Your task to perform on an android device: turn off airplane mode Image 0: 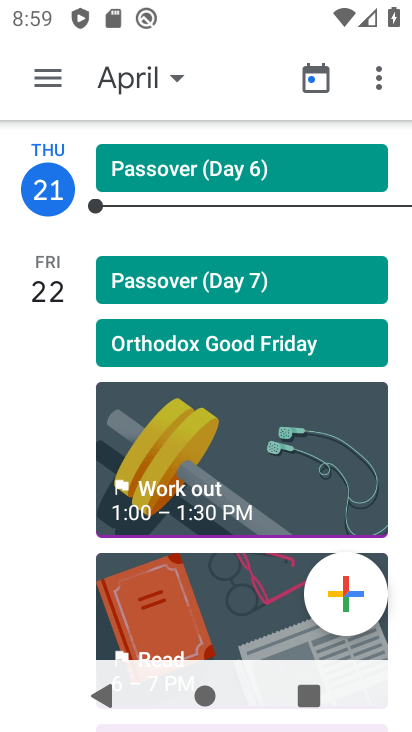
Step 0: press home button
Your task to perform on an android device: turn off airplane mode Image 1: 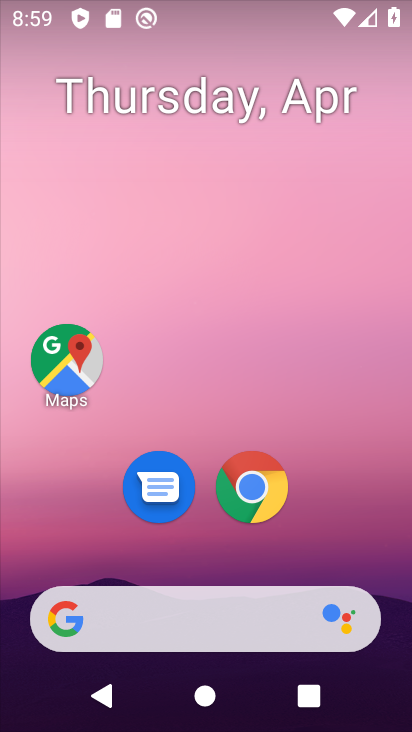
Step 1: drag from (379, 529) to (379, 130)
Your task to perform on an android device: turn off airplane mode Image 2: 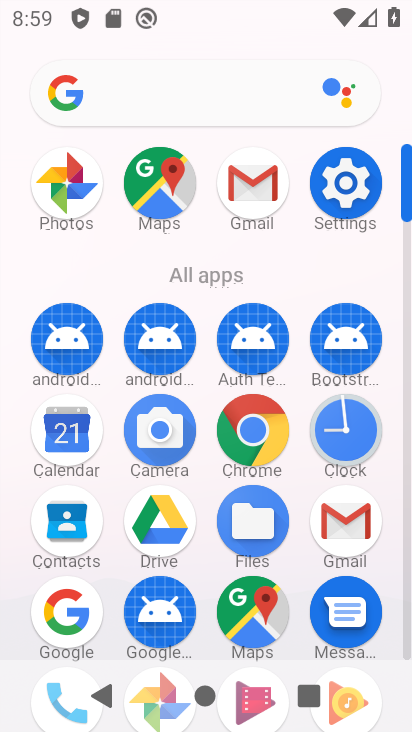
Step 2: click (368, 199)
Your task to perform on an android device: turn off airplane mode Image 3: 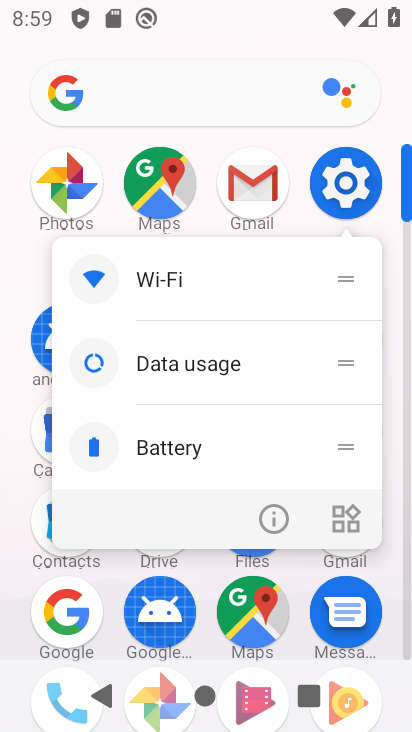
Step 3: click (364, 195)
Your task to perform on an android device: turn off airplane mode Image 4: 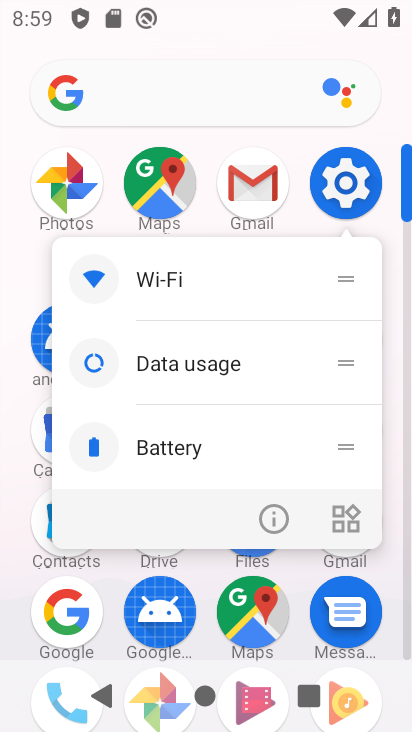
Step 4: click (360, 194)
Your task to perform on an android device: turn off airplane mode Image 5: 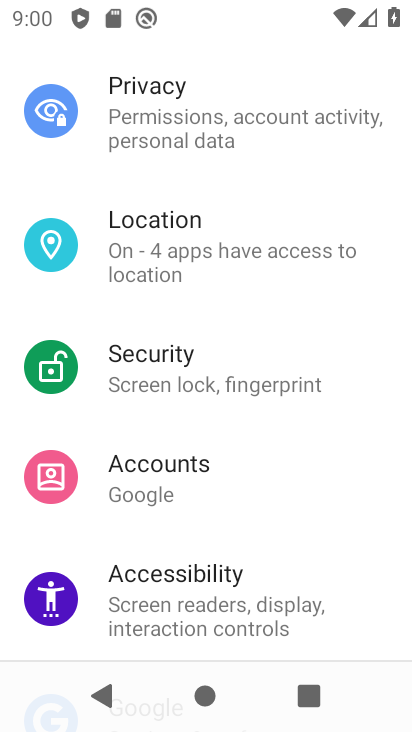
Step 5: drag from (344, 505) to (348, 274)
Your task to perform on an android device: turn off airplane mode Image 6: 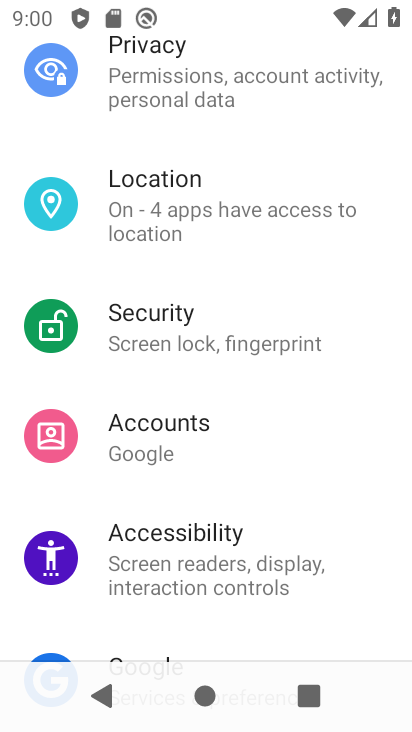
Step 6: drag from (335, 151) to (324, 475)
Your task to perform on an android device: turn off airplane mode Image 7: 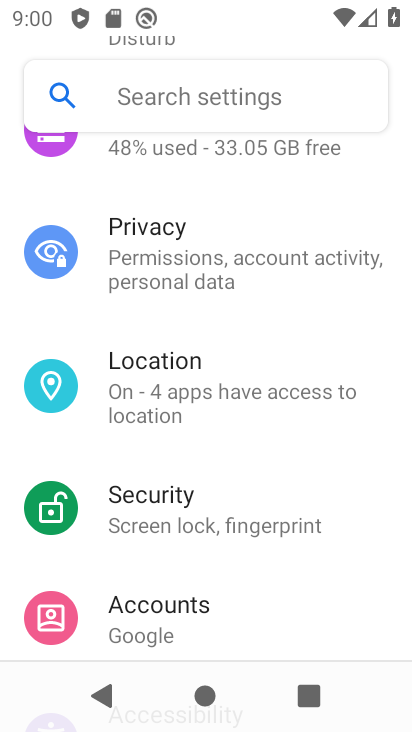
Step 7: drag from (308, 180) to (318, 547)
Your task to perform on an android device: turn off airplane mode Image 8: 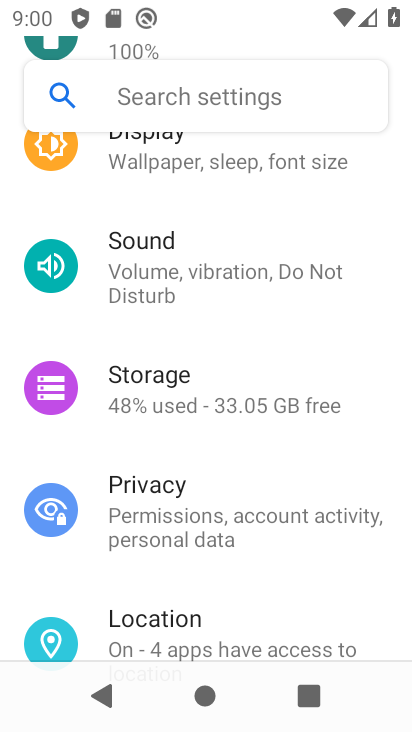
Step 8: drag from (286, 200) to (291, 483)
Your task to perform on an android device: turn off airplane mode Image 9: 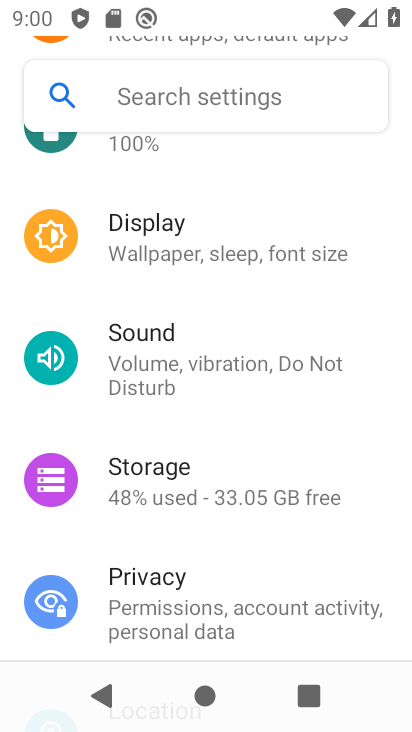
Step 9: drag from (262, 244) to (268, 620)
Your task to perform on an android device: turn off airplane mode Image 10: 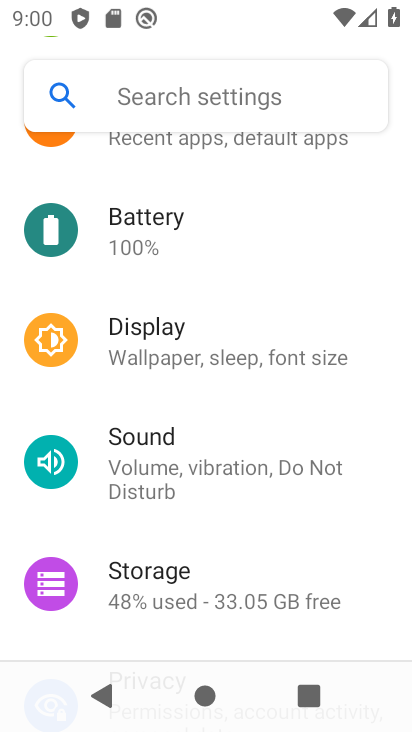
Step 10: drag from (264, 305) to (275, 580)
Your task to perform on an android device: turn off airplane mode Image 11: 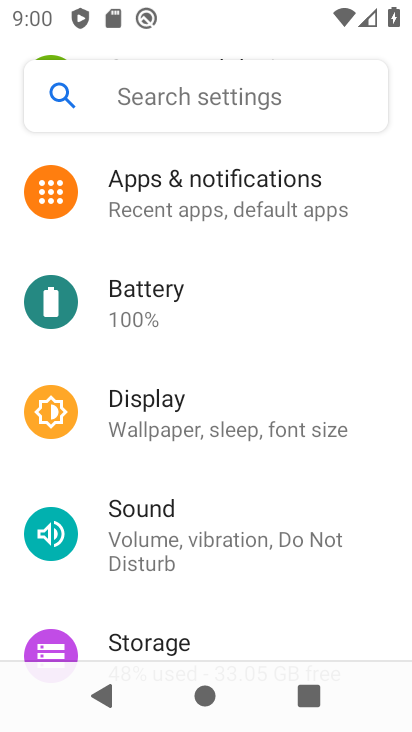
Step 11: drag from (241, 195) to (278, 534)
Your task to perform on an android device: turn off airplane mode Image 12: 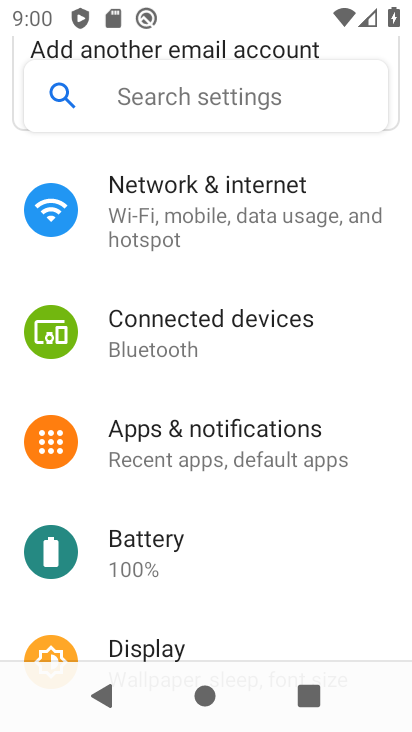
Step 12: click (242, 212)
Your task to perform on an android device: turn off airplane mode Image 13: 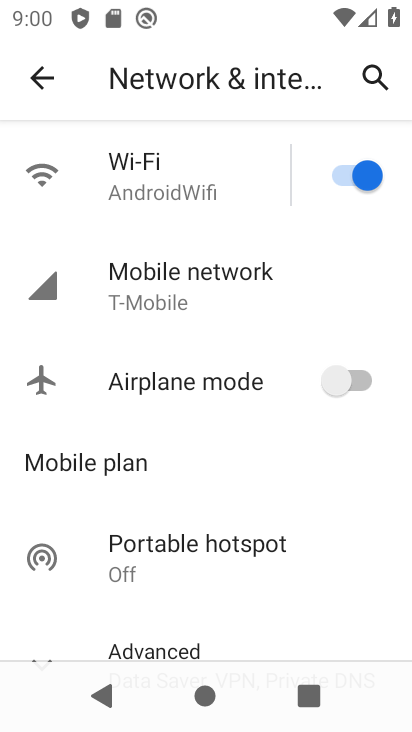
Step 13: task complete